Your task to perform on an android device: open a bookmark in the chrome app Image 0: 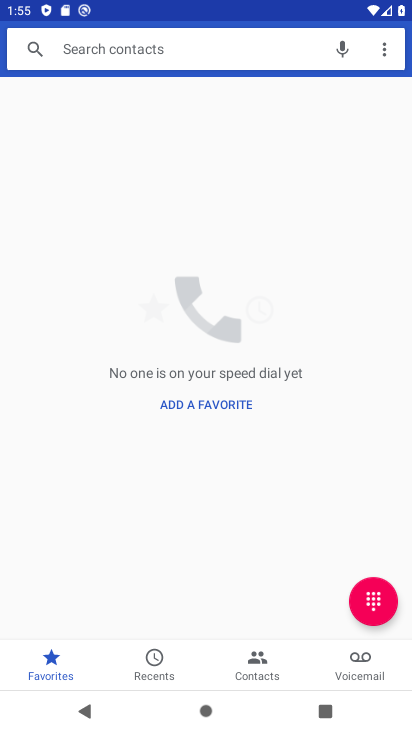
Step 0: press back button
Your task to perform on an android device: open a bookmark in the chrome app Image 1: 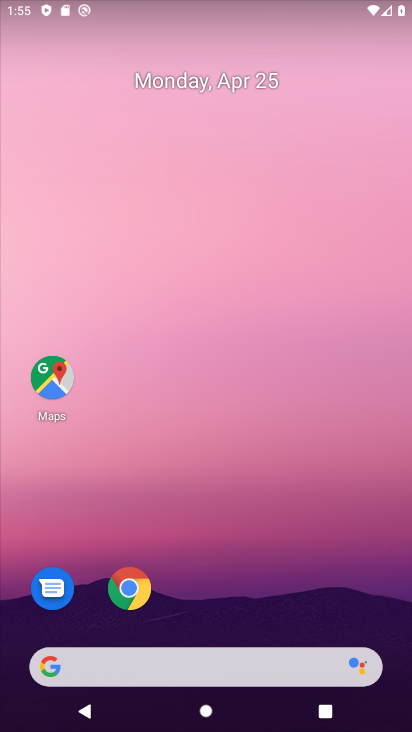
Step 1: click (137, 595)
Your task to perform on an android device: open a bookmark in the chrome app Image 2: 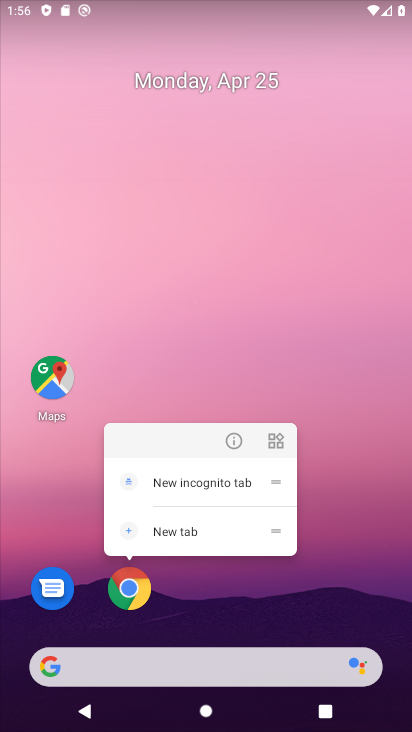
Step 2: click (127, 581)
Your task to perform on an android device: open a bookmark in the chrome app Image 3: 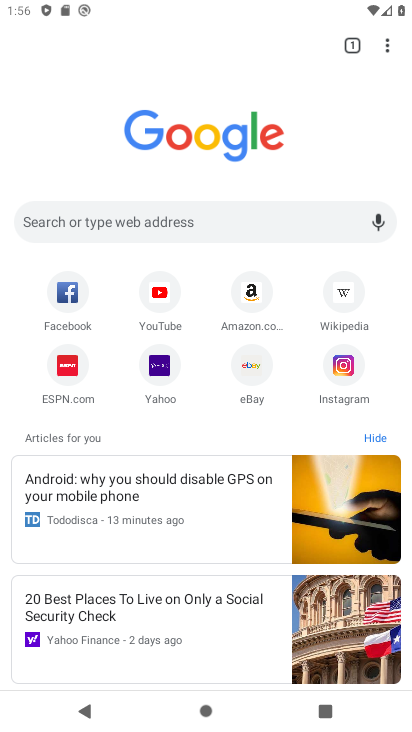
Step 3: task complete